Your task to perform on an android device: Empty the shopping cart on amazon.com. Add "duracell triple a" to the cart on amazon.com, then select checkout. Image 0: 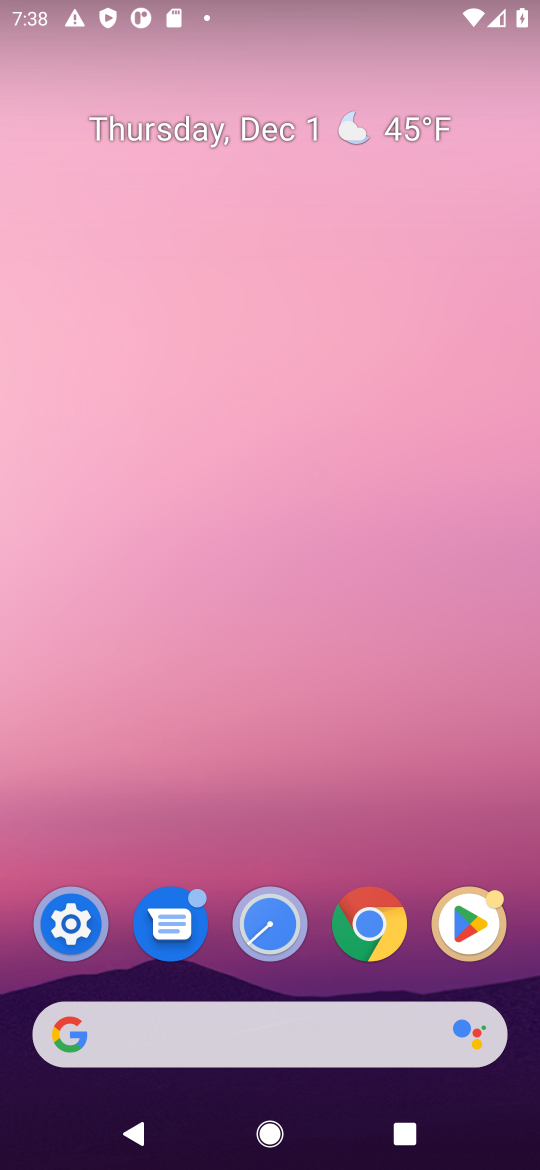
Step 0: click (251, 1027)
Your task to perform on an android device: Empty the shopping cart on amazon.com. Add "duracell triple a" to the cart on amazon.com, then select checkout. Image 1: 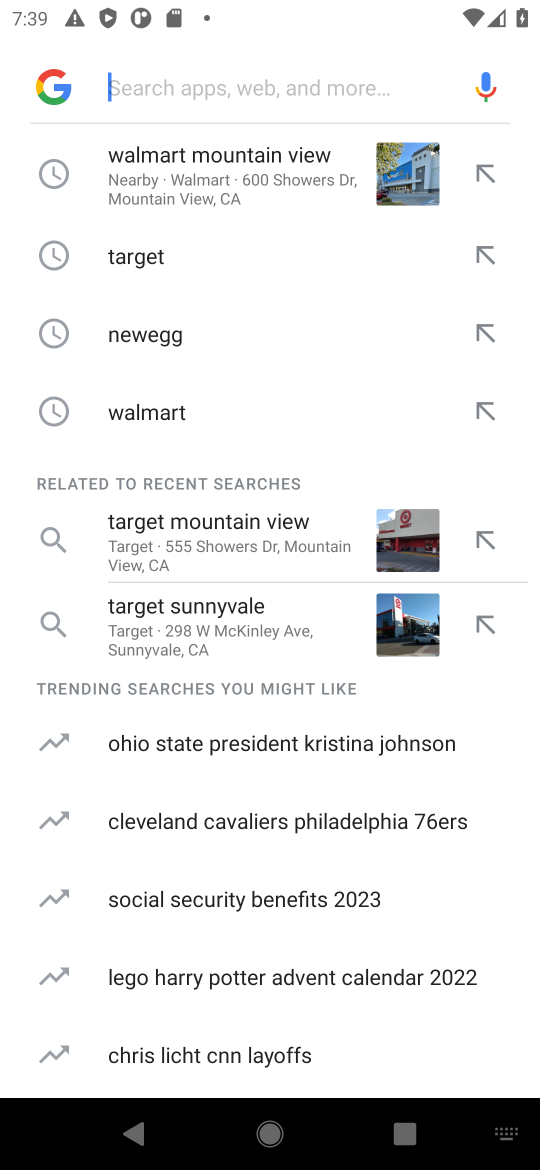
Step 1: type "amazon"
Your task to perform on an android device: Empty the shopping cart on amazon.com. Add "duracell triple a" to the cart on amazon.com, then select checkout. Image 2: 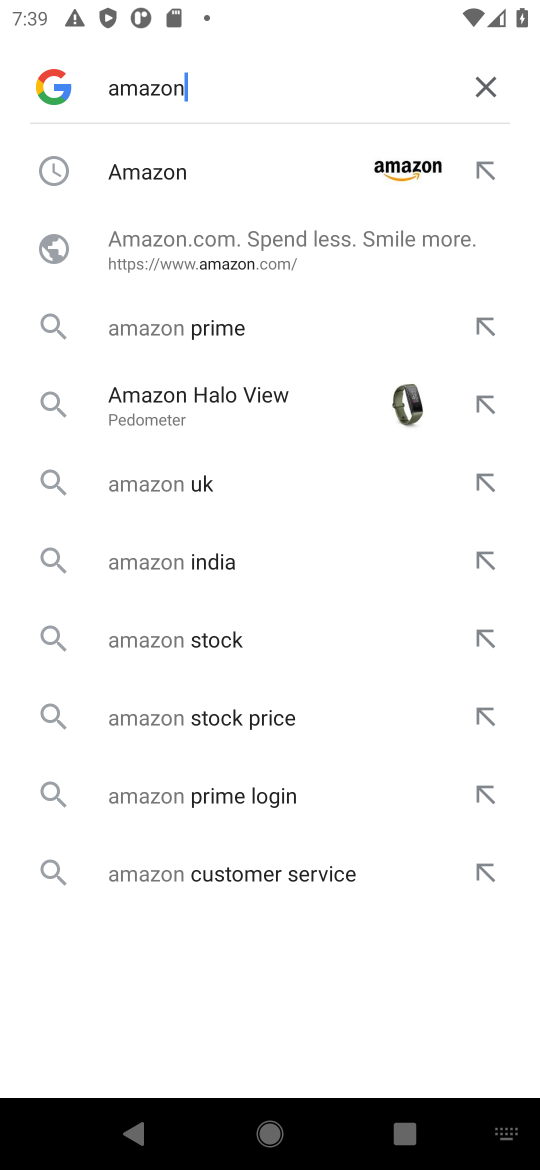
Step 2: click (262, 168)
Your task to perform on an android device: Empty the shopping cart on amazon.com. Add "duracell triple a" to the cart on amazon.com, then select checkout. Image 3: 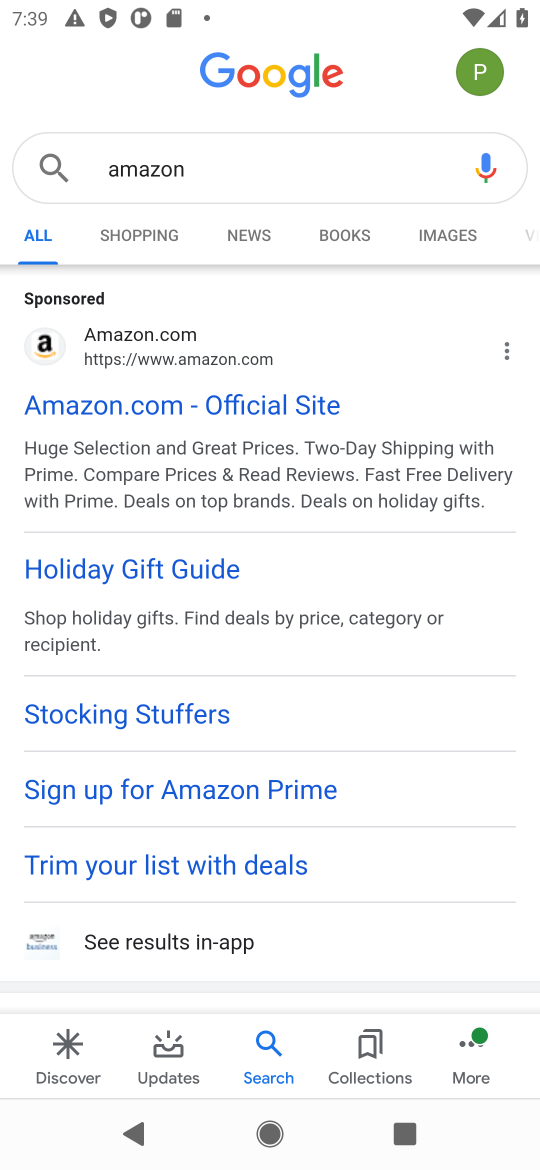
Step 3: click (128, 429)
Your task to perform on an android device: Empty the shopping cart on amazon.com. Add "duracell triple a" to the cart on amazon.com, then select checkout. Image 4: 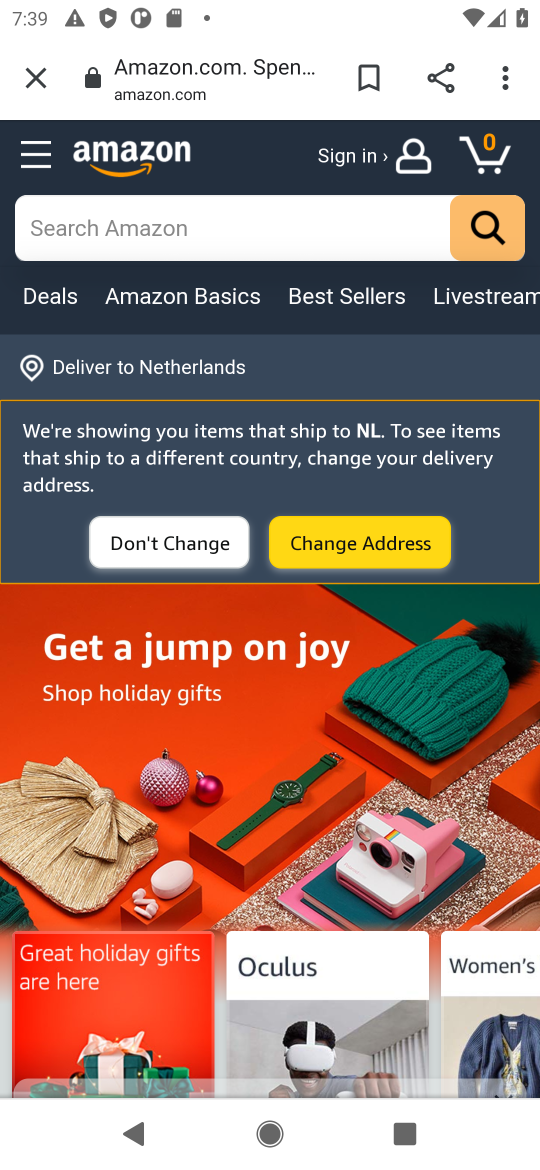
Step 4: click (138, 236)
Your task to perform on an android device: Empty the shopping cart on amazon.com. Add "duracell triple a" to the cart on amazon.com, then select checkout. Image 5: 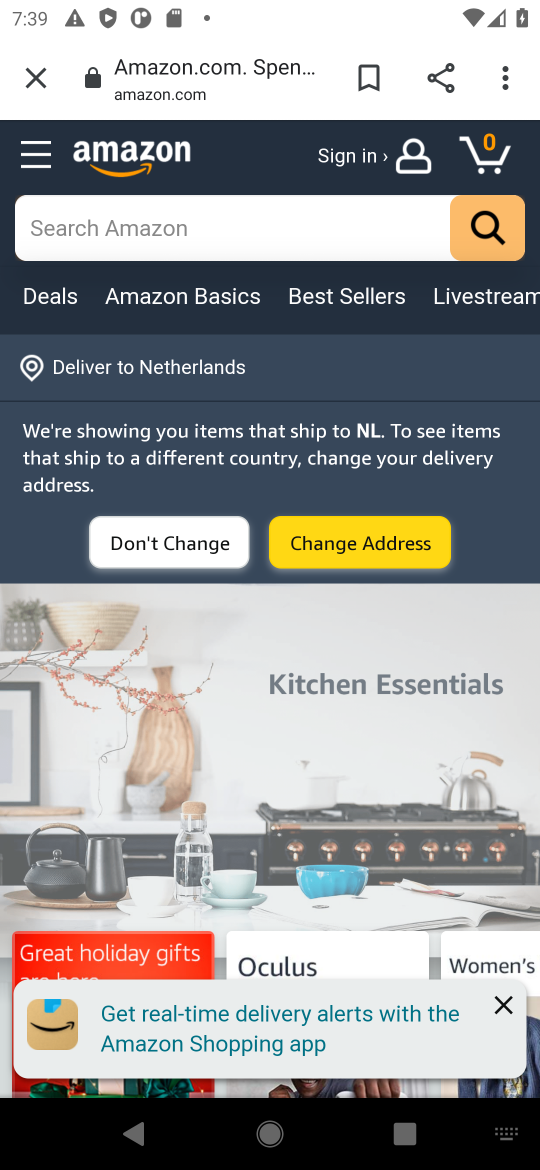
Step 5: type "duracel triple a"
Your task to perform on an android device: Empty the shopping cart on amazon.com. Add "duracell triple a" to the cart on amazon.com, then select checkout. Image 6: 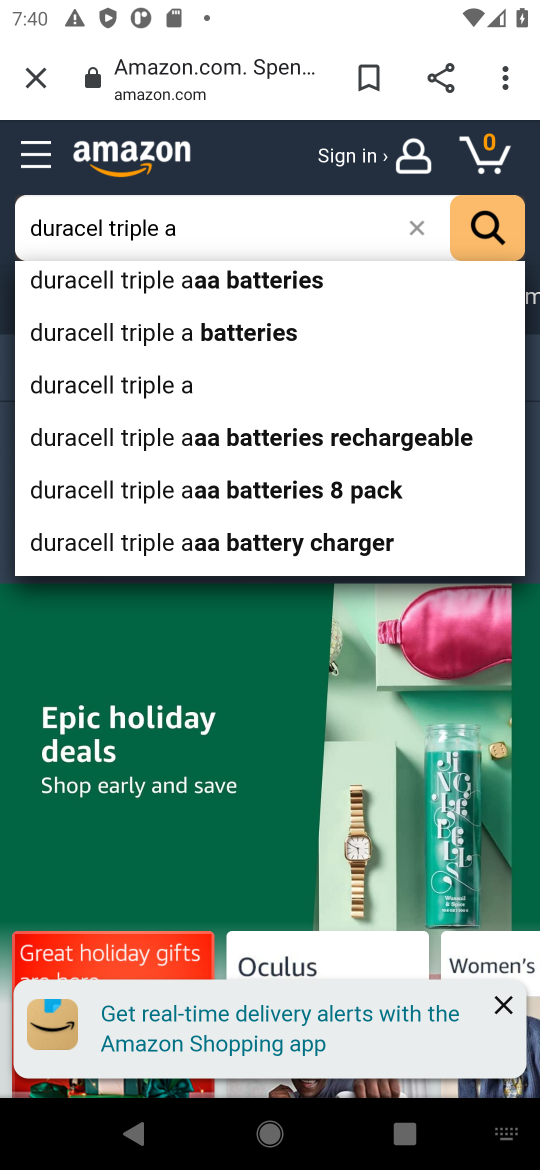
Step 6: click (496, 224)
Your task to perform on an android device: Empty the shopping cart on amazon.com. Add "duracell triple a" to the cart on amazon.com, then select checkout. Image 7: 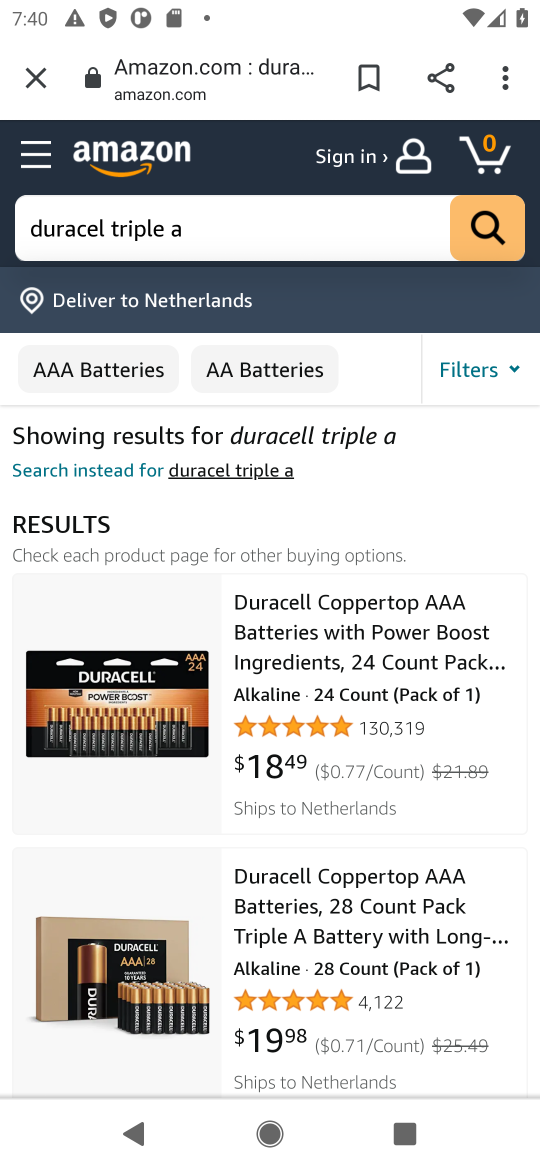
Step 7: click (270, 645)
Your task to perform on an android device: Empty the shopping cart on amazon.com. Add "duracell triple a" to the cart on amazon.com, then select checkout. Image 8: 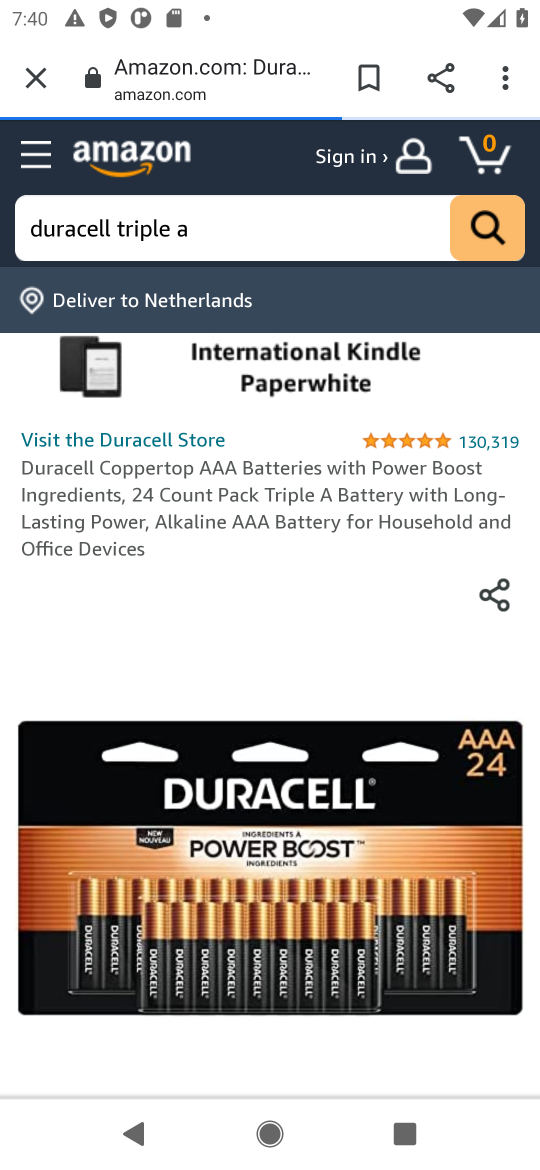
Step 8: drag from (222, 685) to (291, 320)
Your task to perform on an android device: Empty the shopping cart on amazon.com. Add "duracell triple a" to the cart on amazon.com, then select checkout. Image 9: 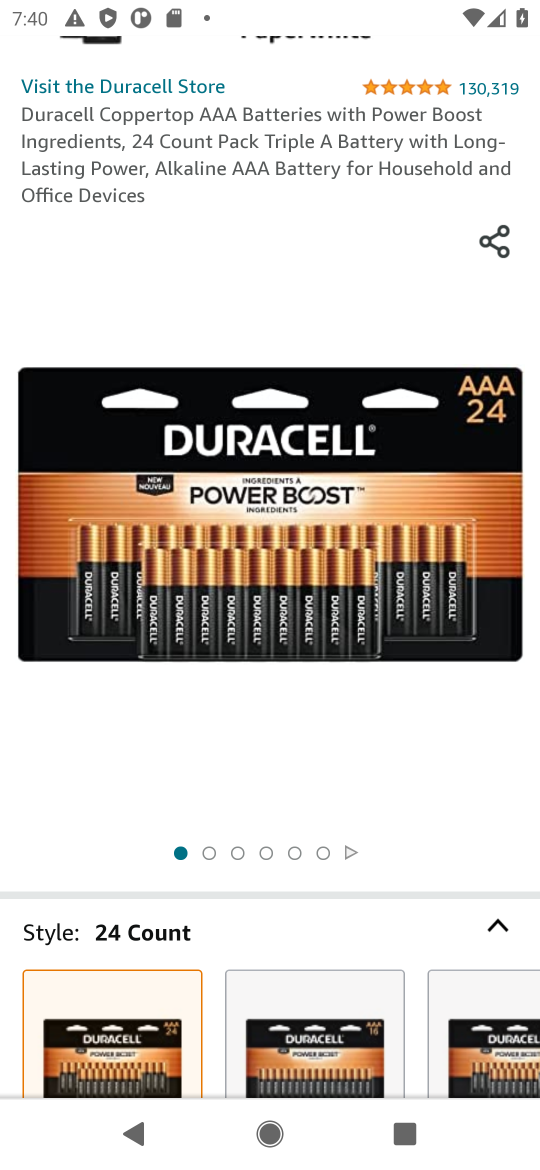
Step 9: drag from (298, 878) to (344, 151)
Your task to perform on an android device: Empty the shopping cart on amazon.com. Add "duracell triple a" to the cart on amazon.com, then select checkout. Image 10: 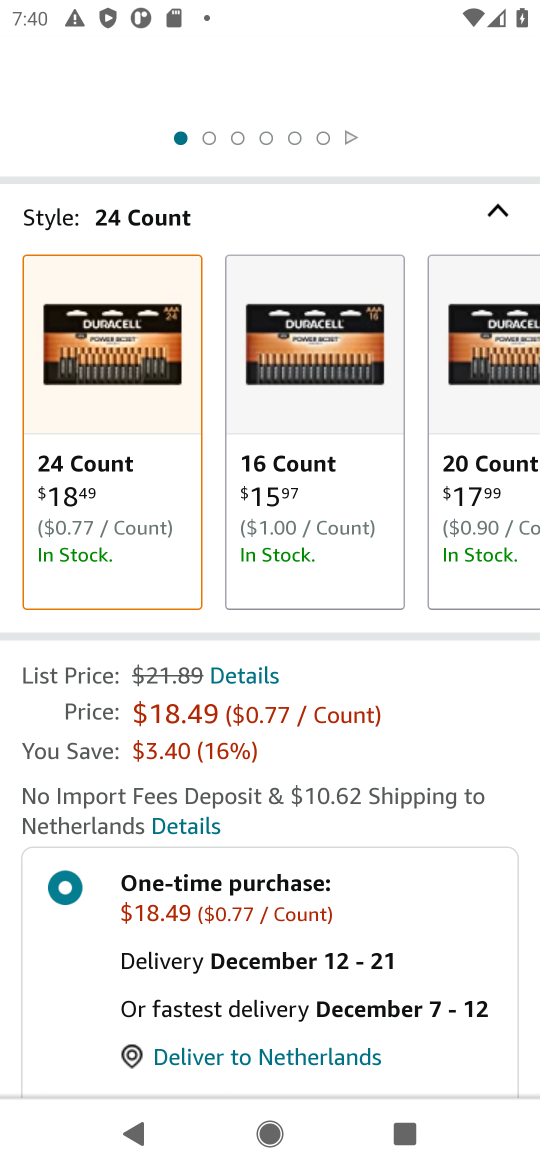
Step 10: drag from (331, 944) to (356, 190)
Your task to perform on an android device: Empty the shopping cart on amazon.com. Add "duracell triple a" to the cart on amazon.com, then select checkout. Image 11: 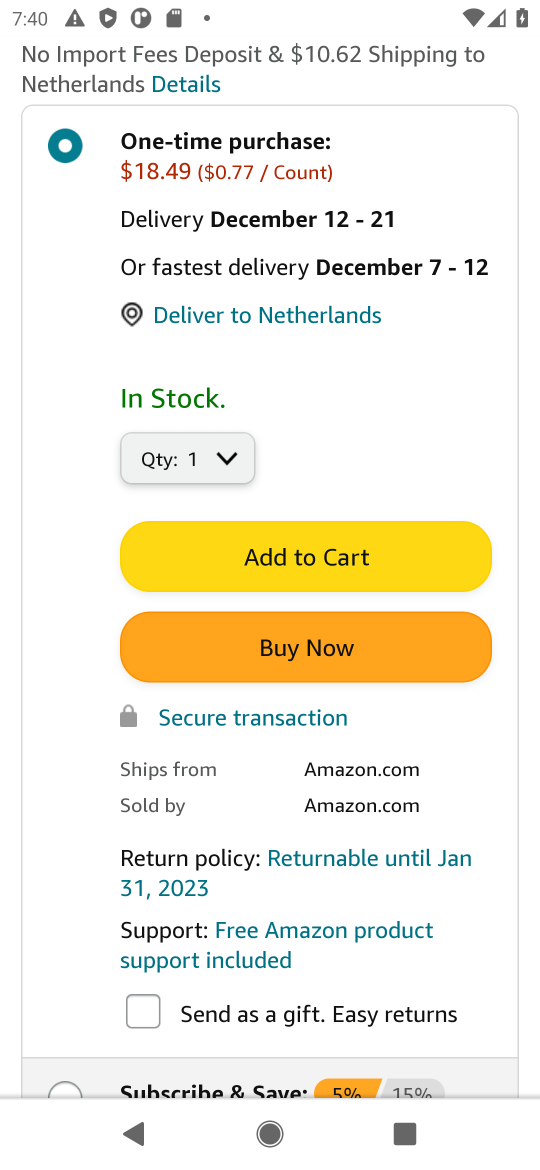
Step 11: click (339, 569)
Your task to perform on an android device: Empty the shopping cart on amazon.com. Add "duracell triple a" to the cart on amazon.com, then select checkout. Image 12: 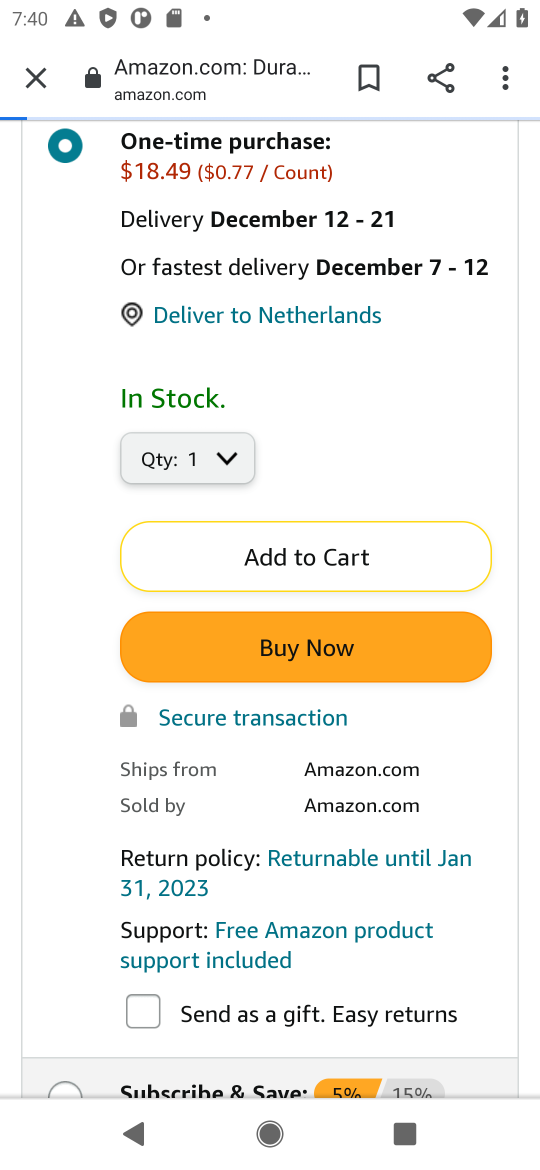
Step 12: task complete